Your task to perform on an android device: Open calendar and show me the fourth week of next month Image 0: 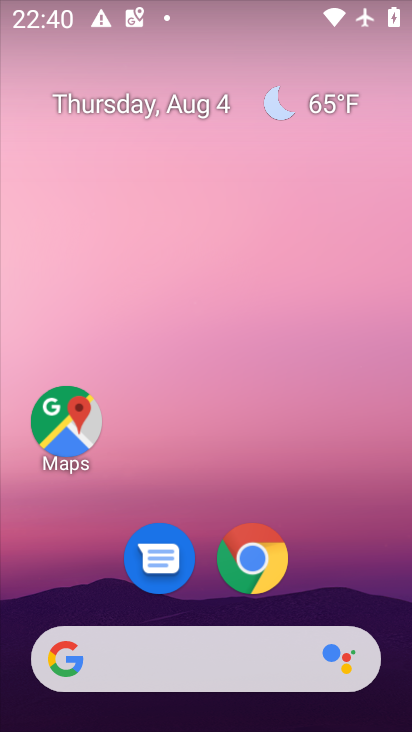
Step 0: drag from (356, 533) to (234, 1)
Your task to perform on an android device: Open calendar and show me the fourth week of next month Image 1: 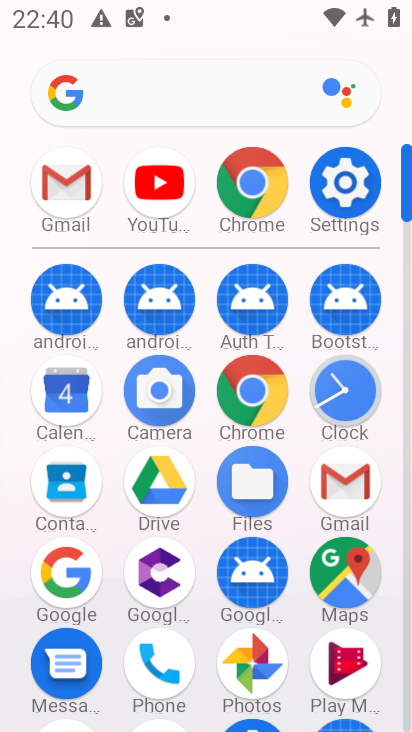
Step 1: click (75, 393)
Your task to perform on an android device: Open calendar and show me the fourth week of next month Image 2: 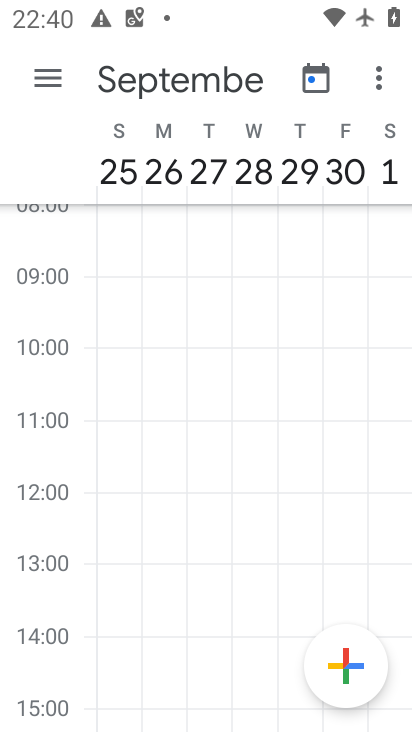
Step 2: task complete